Your task to perform on an android device: Go to sound settings Image 0: 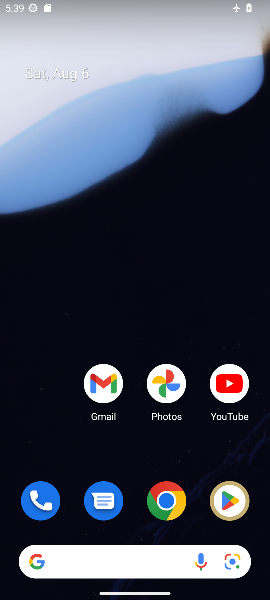
Step 0: click (199, 365)
Your task to perform on an android device: Go to sound settings Image 1: 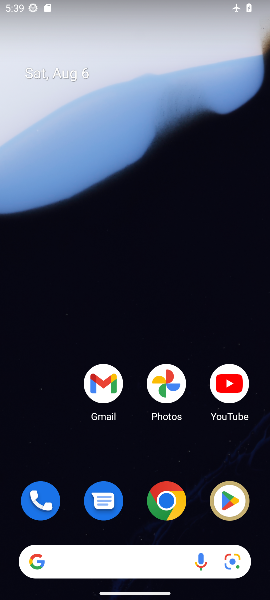
Step 1: drag from (199, 365) to (168, 36)
Your task to perform on an android device: Go to sound settings Image 2: 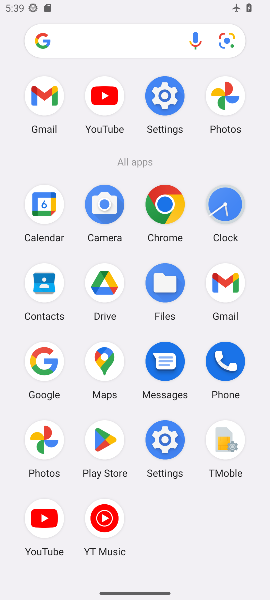
Step 2: click (165, 92)
Your task to perform on an android device: Go to sound settings Image 3: 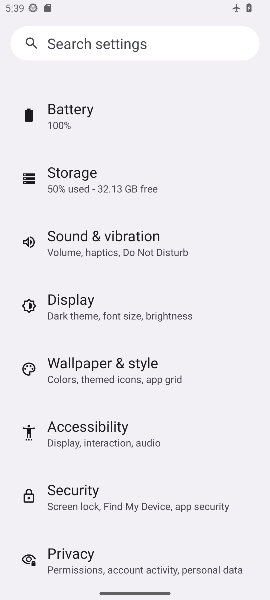
Step 3: drag from (156, 547) to (118, 311)
Your task to perform on an android device: Go to sound settings Image 4: 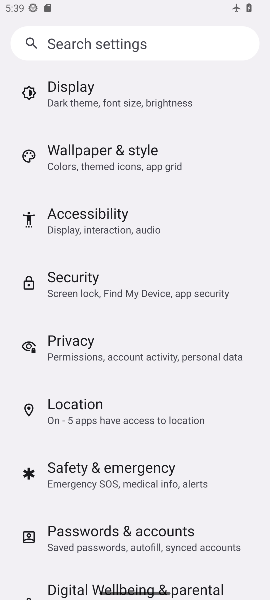
Step 4: click (96, 209)
Your task to perform on an android device: Go to sound settings Image 5: 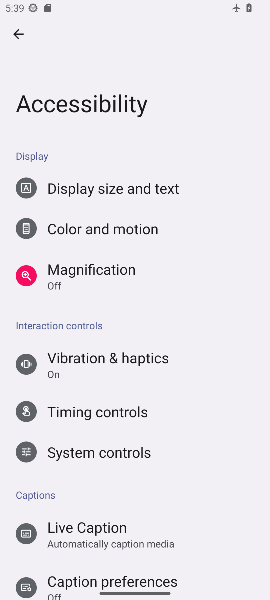
Step 5: click (18, 30)
Your task to perform on an android device: Go to sound settings Image 6: 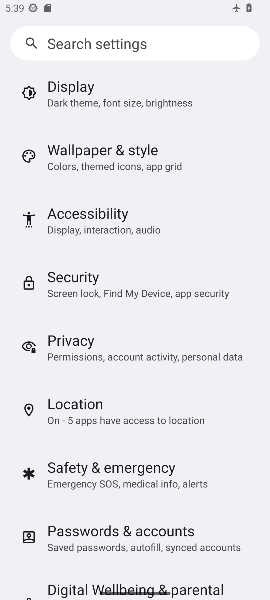
Step 6: drag from (161, 108) to (241, 524)
Your task to perform on an android device: Go to sound settings Image 7: 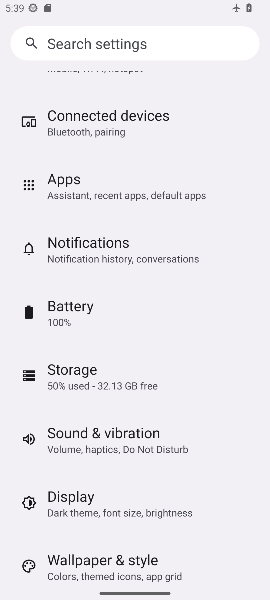
Step 7: click (163, 439)
Your task to perform on an android device: Go to sound settings Image 8: 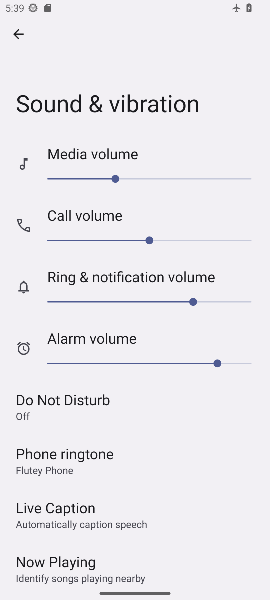
Step 8: task complete